Your task to perform on an android device: turn off smart reply in the gmail app Image 0: 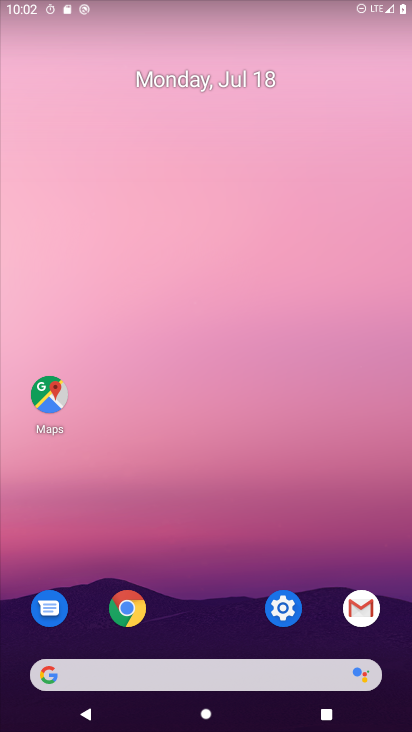
Step 0: press home button
Your task to perform on an android device: turn off smart reply in the gmail app Image 1: 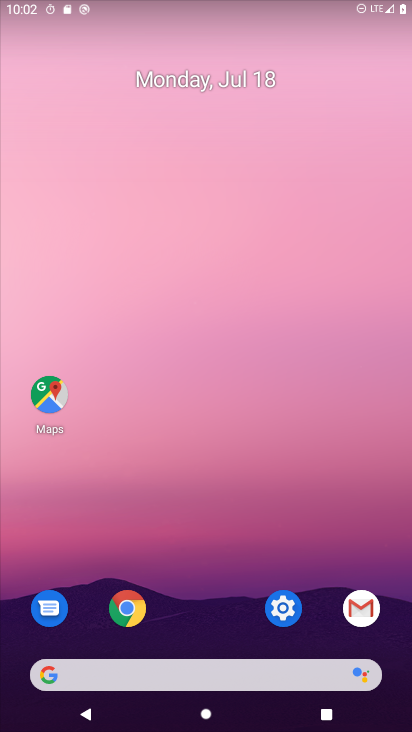
Step 1: click (350, 606)
Your task to perform on an android device: turn off smart reply in the gmail app Image 2: 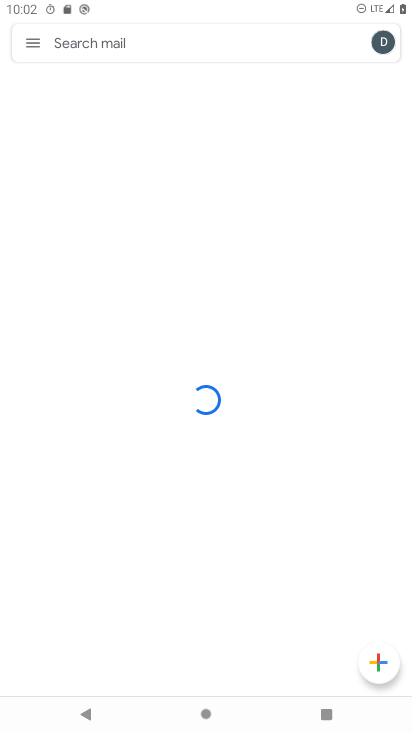
Step 2: click (37, 41)
Your task to perform on an android device: turn off smart reply in the gmail app Image 3: 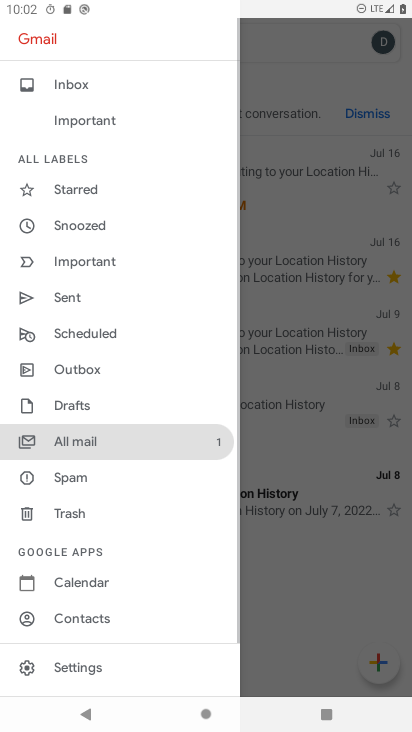
Step 3: click (83, 660)
Your task to perform on an android device: turn off smart reply in the gmail app Image 4: 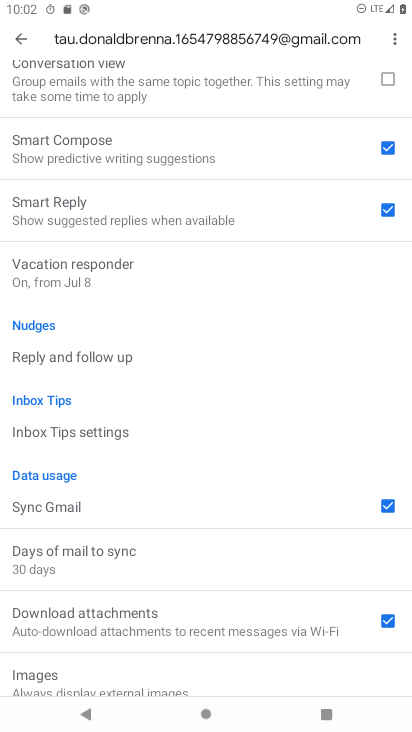
Step 4: click (321, 212)
Your task to perform on an android device: turn off smart reply in the gmail app Image 5: 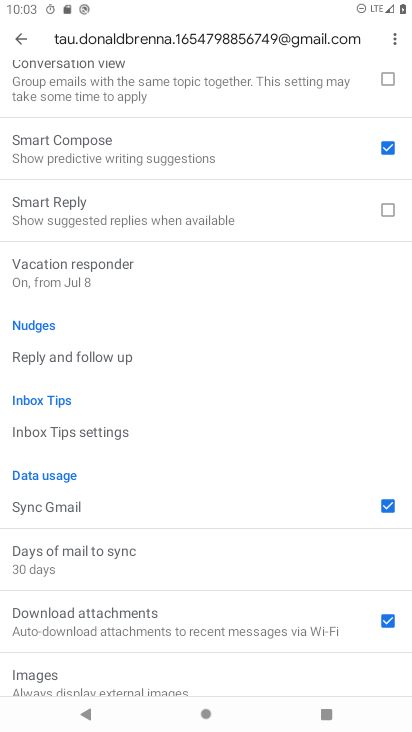
Step 5: task complete